Your task to perform on an android device: Open the calendar app, open the side menu, and click the "Day" option Image 0: 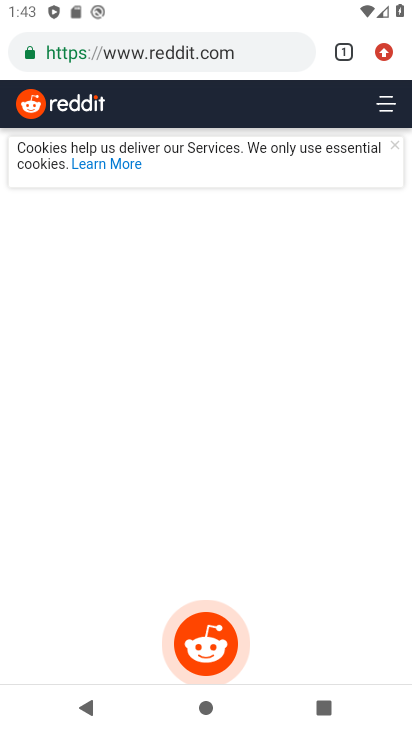
Step 0: press home button
Your task to perform on an android device: Open the calendar app, open the side menu, and click the "Day" option Image 1: 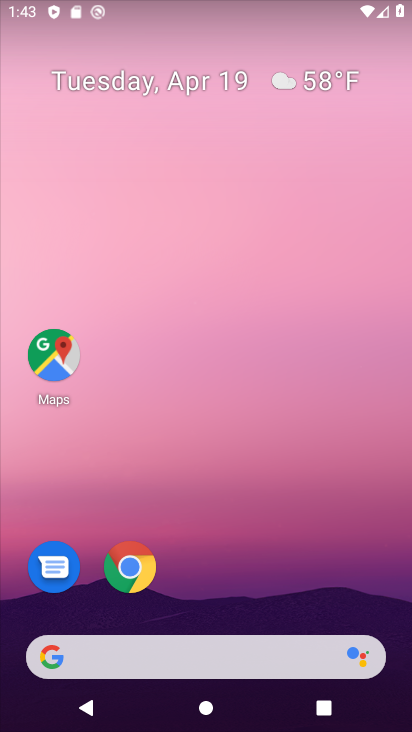
Step 1: drag from (391, 616) to (311, 36)
Your task to perform on an android device: Open the calendar app, open the side menu, and click the "Day" option Image 2: 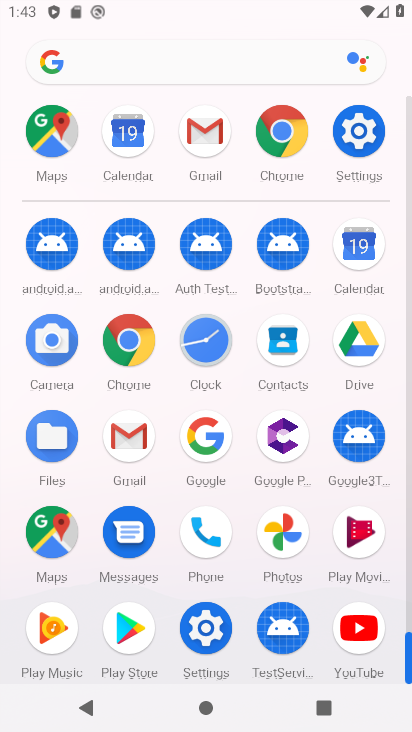
Step 2: click (358, 247)
Your task to perform on an android device: Open the calendar app, open the side menu, and click the "Day" option Image 3: 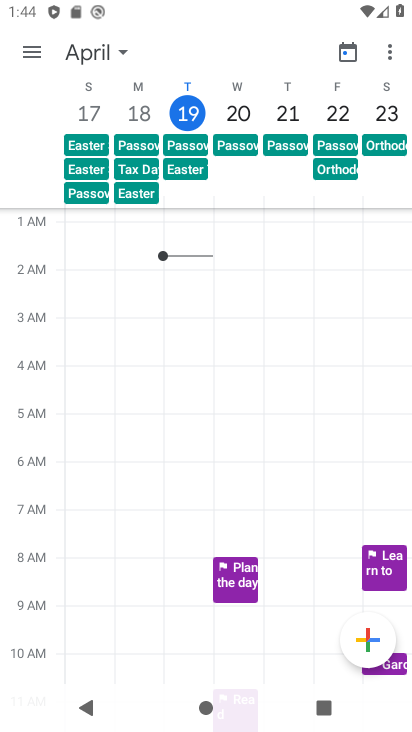
Step 3: click (25, 52)
Your task to perform on an android device: Open the calendar app, open the side menu, and click the "Day" option Image 4: 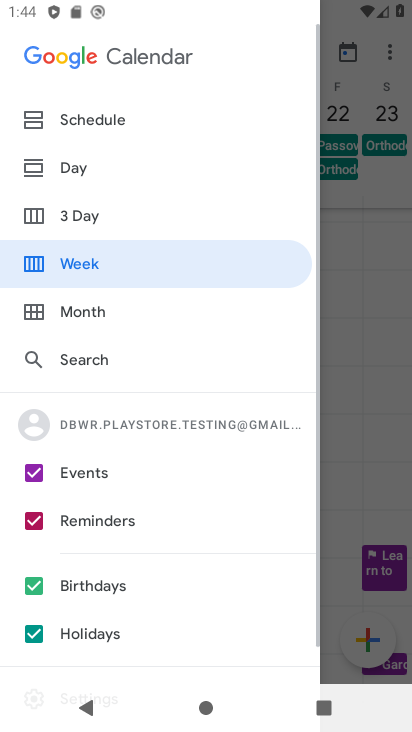
Step 4: click (78, 163)
Your task to perform on an android device: Open the calendar app, open the side menu, and click the "Day" option Image 5: 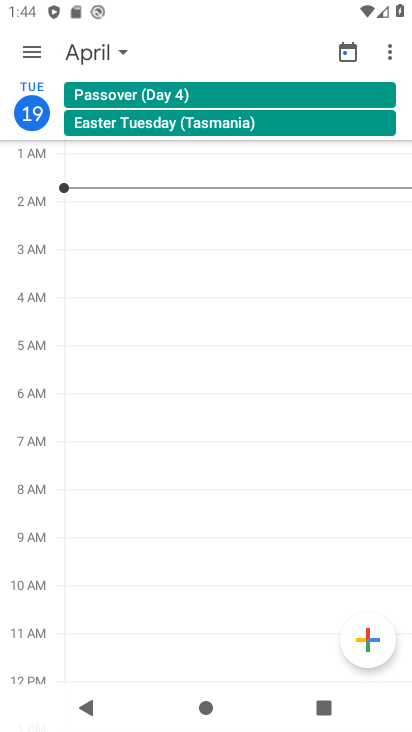
Step 5: task complete